Your task to perform on an android device: What's on my calendar today? Image 0: 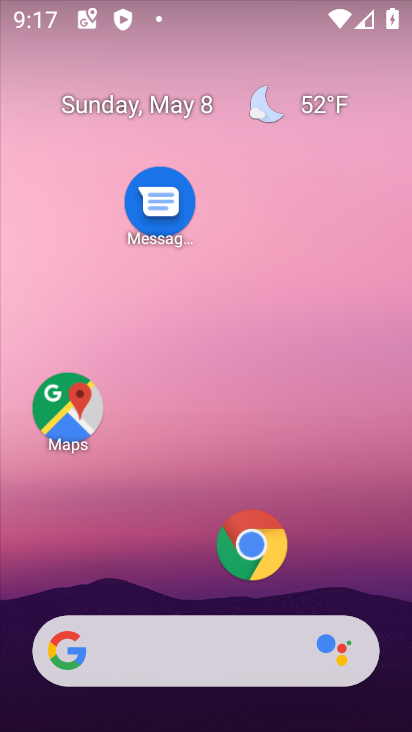
Step 0: drag from (172, 603) to (123, 6)
Your task to perform on an android device: What's on my calendar today? Image 1: 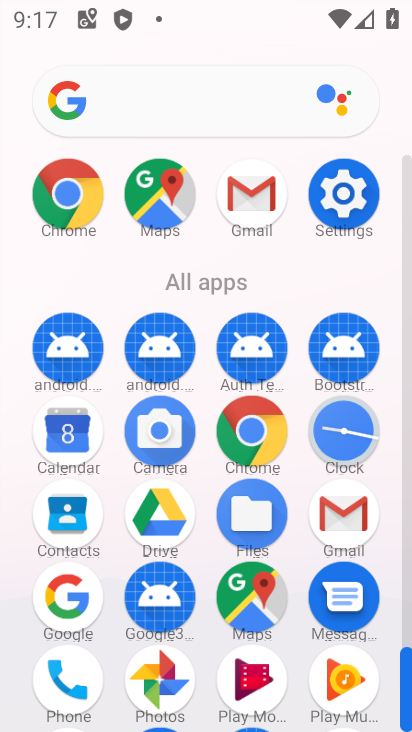
Step 1: click (68, 435)
Your task to perform on an android device: What's on my calendar today? Image 2: 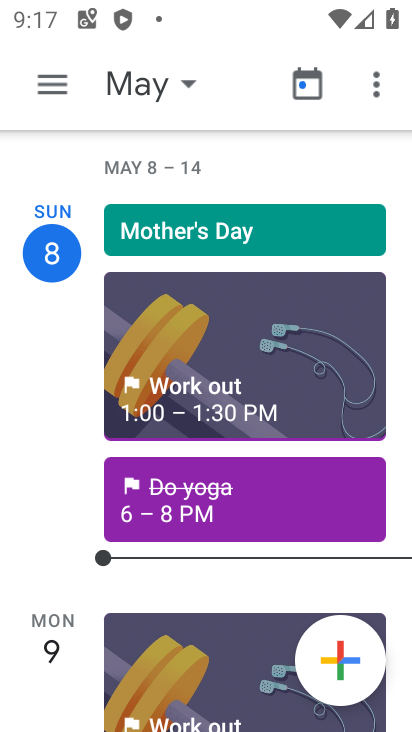
Step 2: click (39, 75)
Your task to perform on an android device: What's on my calendar today? Image 3: 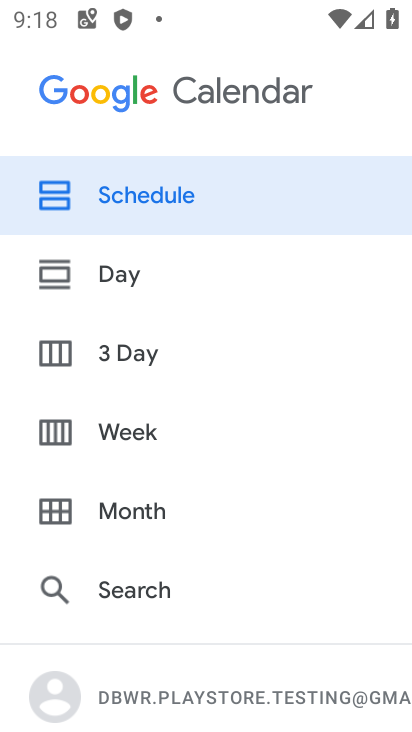
Step 3: click (139, 281)
Your task to perform on an android device: What's on my calendar today? Image 4: 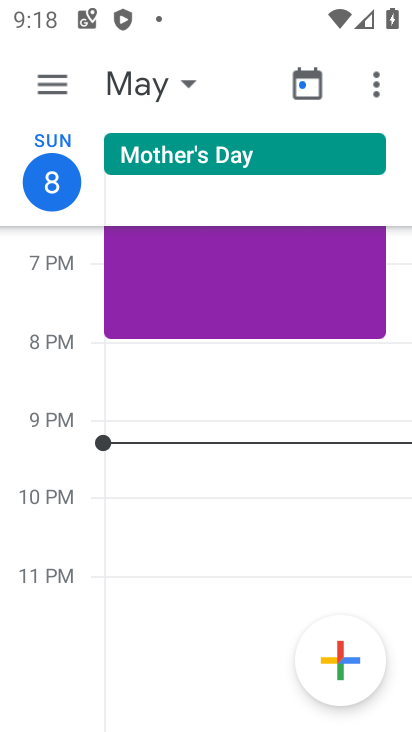
Step 4: task complete